Your task to perform on an android device: change text size in settings app Image 0: 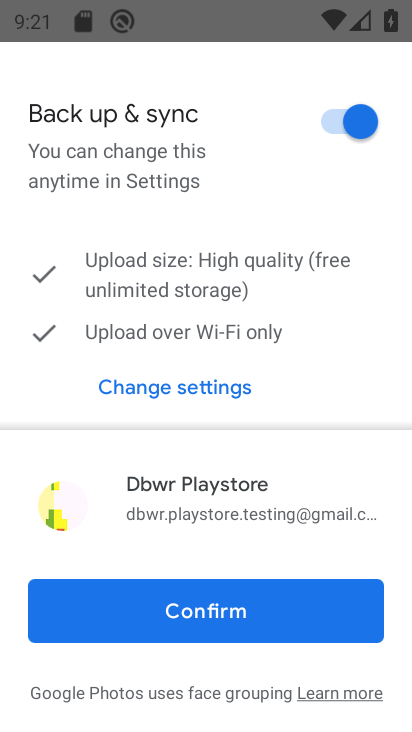
Step 0: press home button
Your task to perform on an android device: change text size in settings app Image 1: 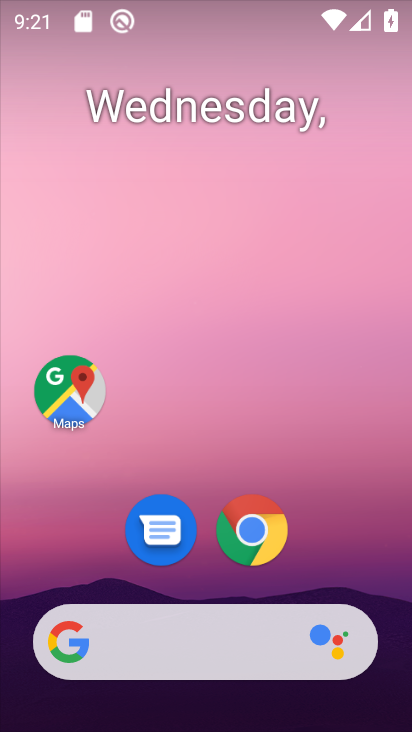
Step 1: drag from (103, 596) to (210, 122)
Your task to perform on an android device: change text size in settings app Image 2: 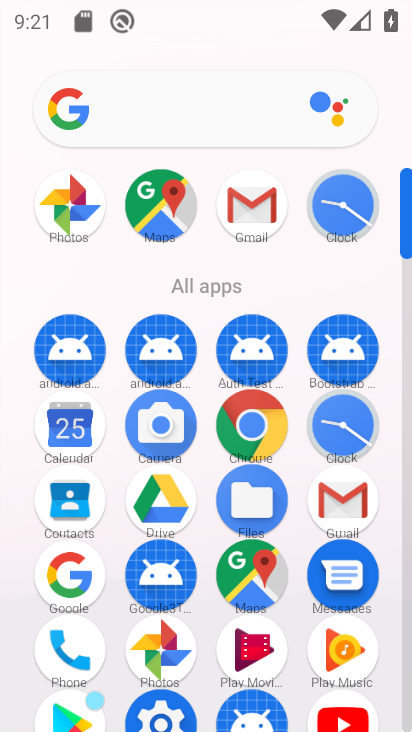
Step 2: drag from (175, 573) to (231, 360)
Your task to perform on an android device: change text size in settings app Image 3: 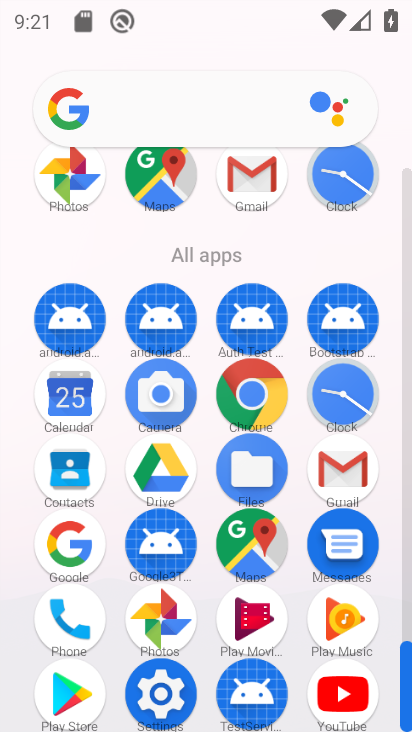
Step 3: click (157, 694)
Your task to perform on an android device: change text size in settings app Image 4: 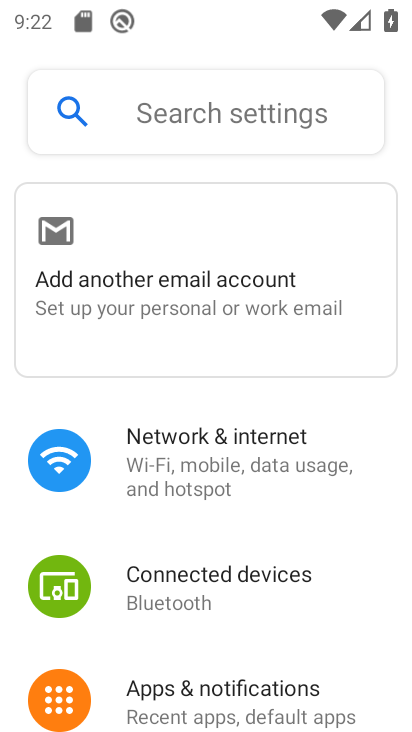
Step 4: drag from (148, 612) to (251, 283)
Your task to perform on an android device: change text size in settings app Image 5: 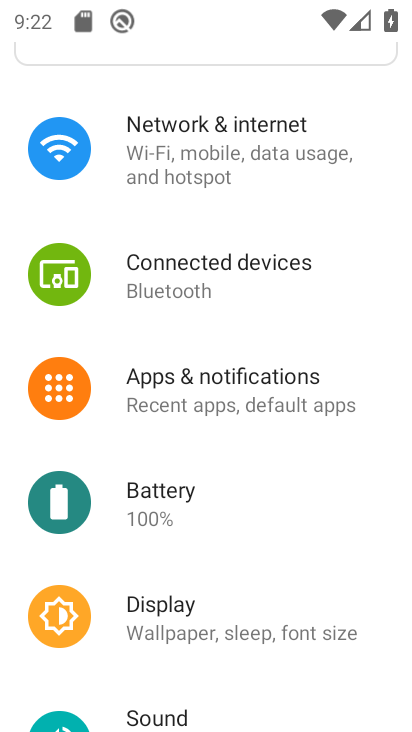
Step 5: click (217, 615)
Your task to perform on an android device: change text size in settings app Image 6: 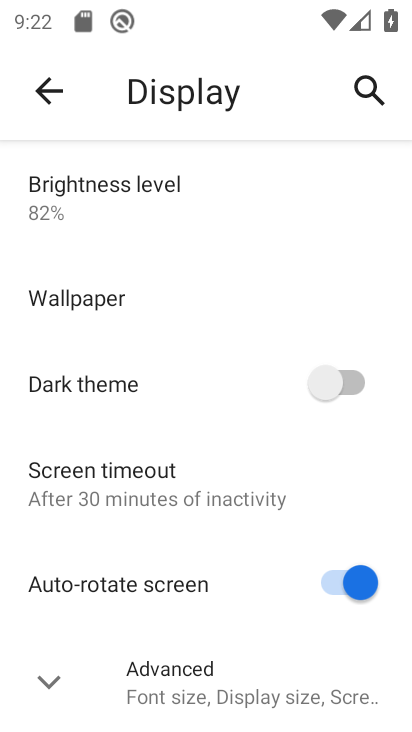
Step 6: click (191, 681)
Your task to perform on an android device: change text size in settings app Image 7: 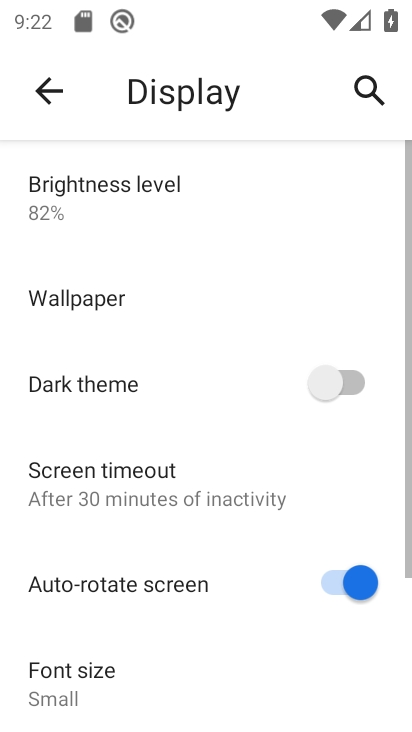
Step 7: drag from (191, 681) to (278, 287)
Your task to perform on an android device: change text size in settings app Image 8: 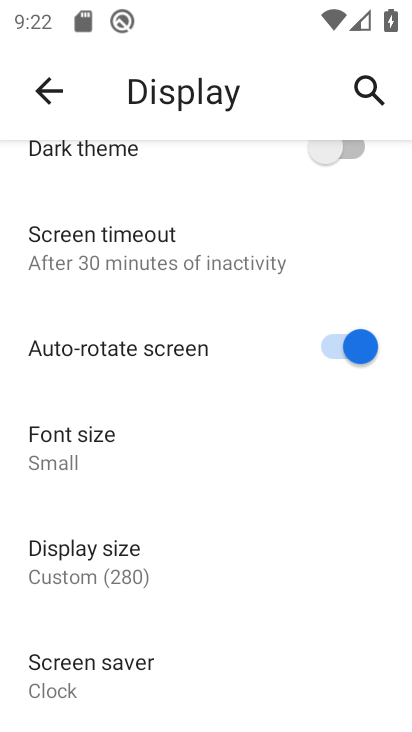
Step 8: click (179, 439)
Your task to perform on an android device: change text size in settings app Image 9: 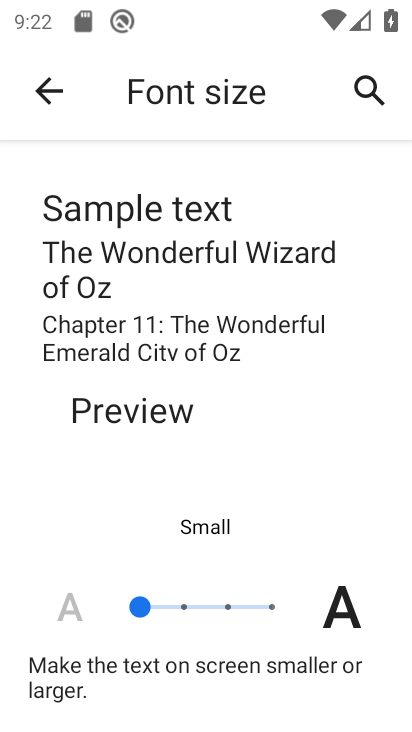
Step 9: click (179, 618)
Your task to perform on an android device: change text size in settings app Image 10: 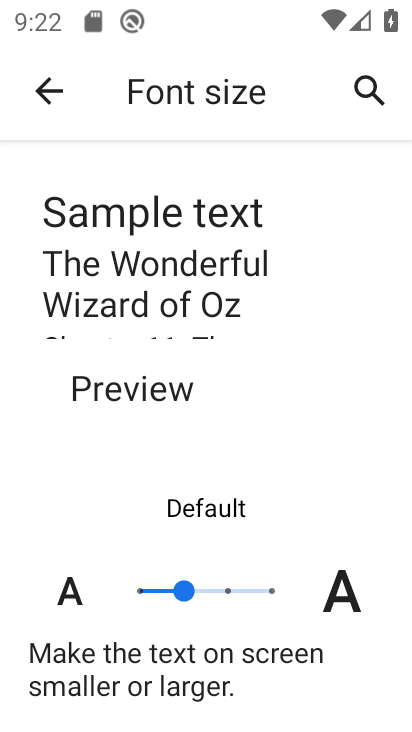
Step 10: task complete